Your task to perform on an android device: Go to eBay Image 0: 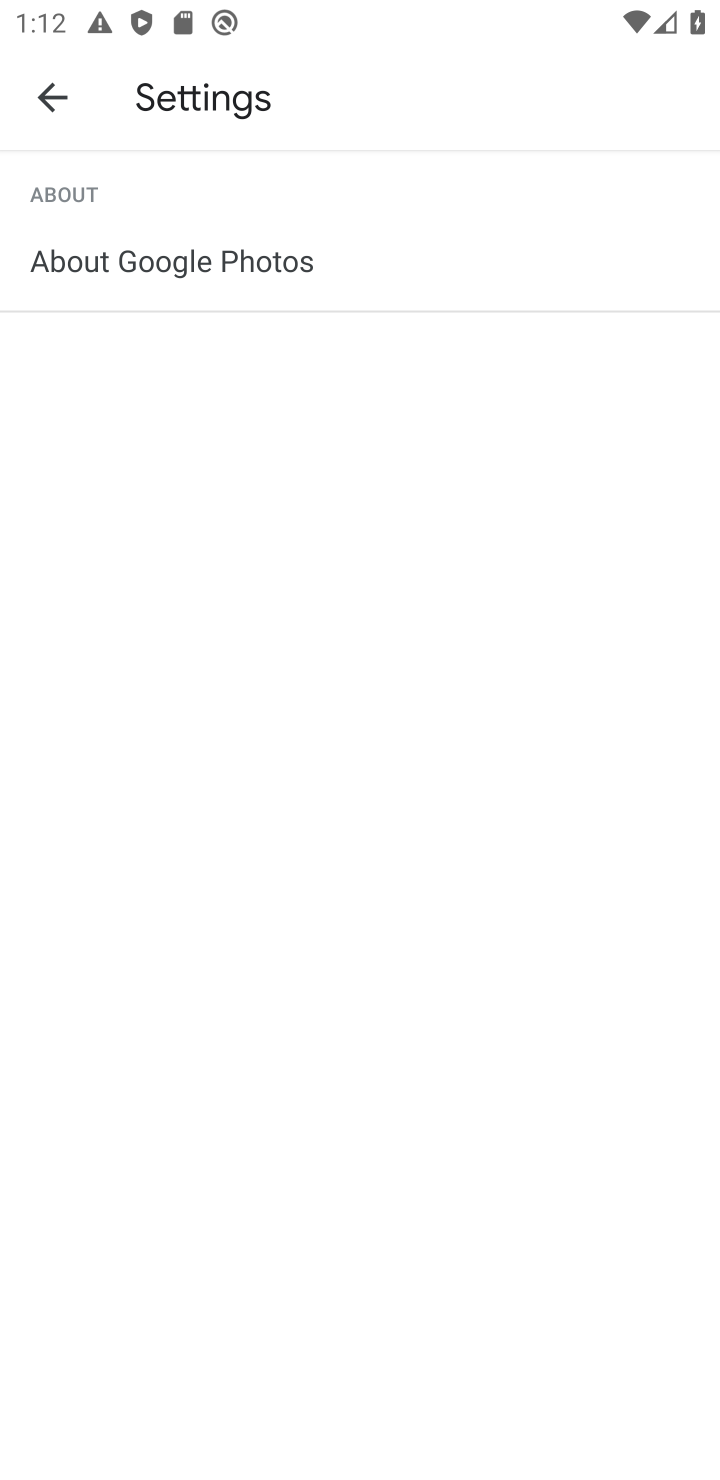
Step 0: press home button
Your task to perform on an android device: Go to eBay Image 1: 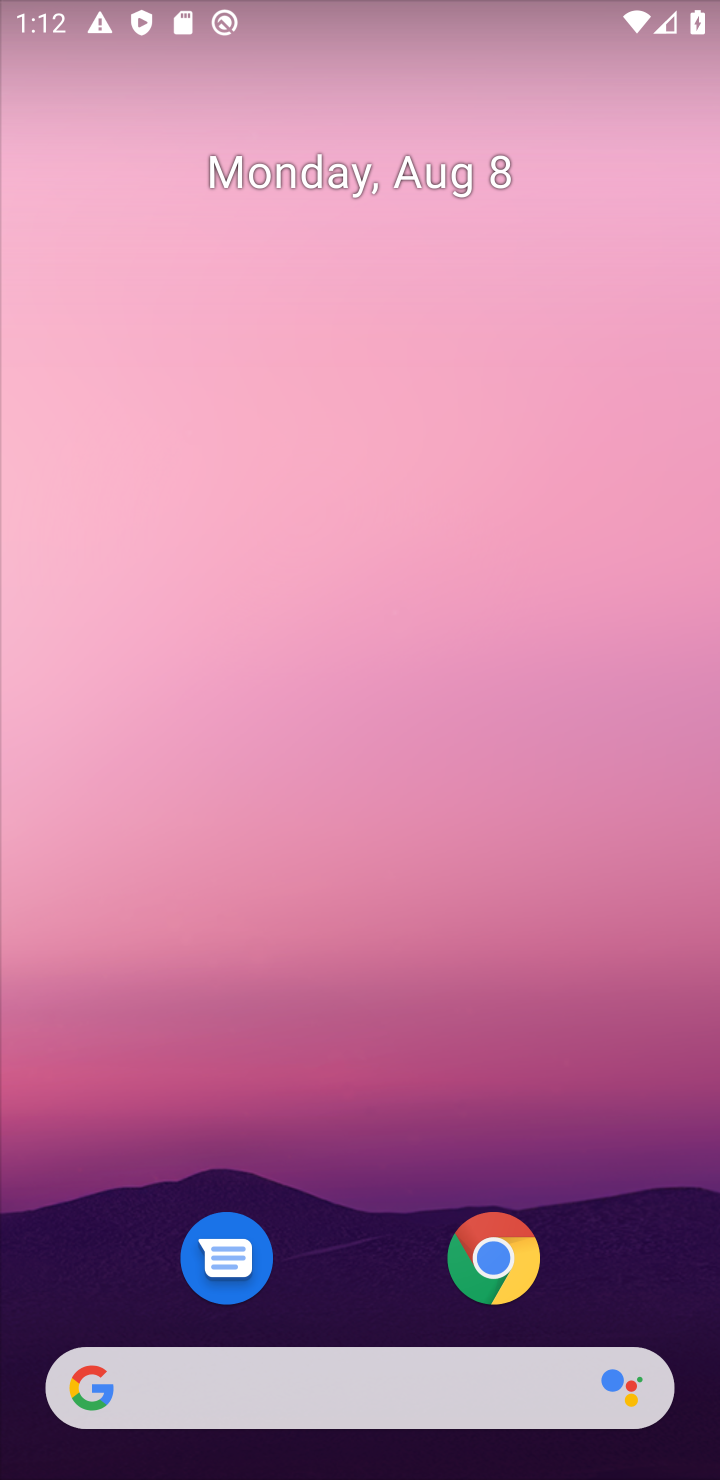
Step 1: click (459, 1248)
Your task to perform on an android device: Go to eBay Image 2: 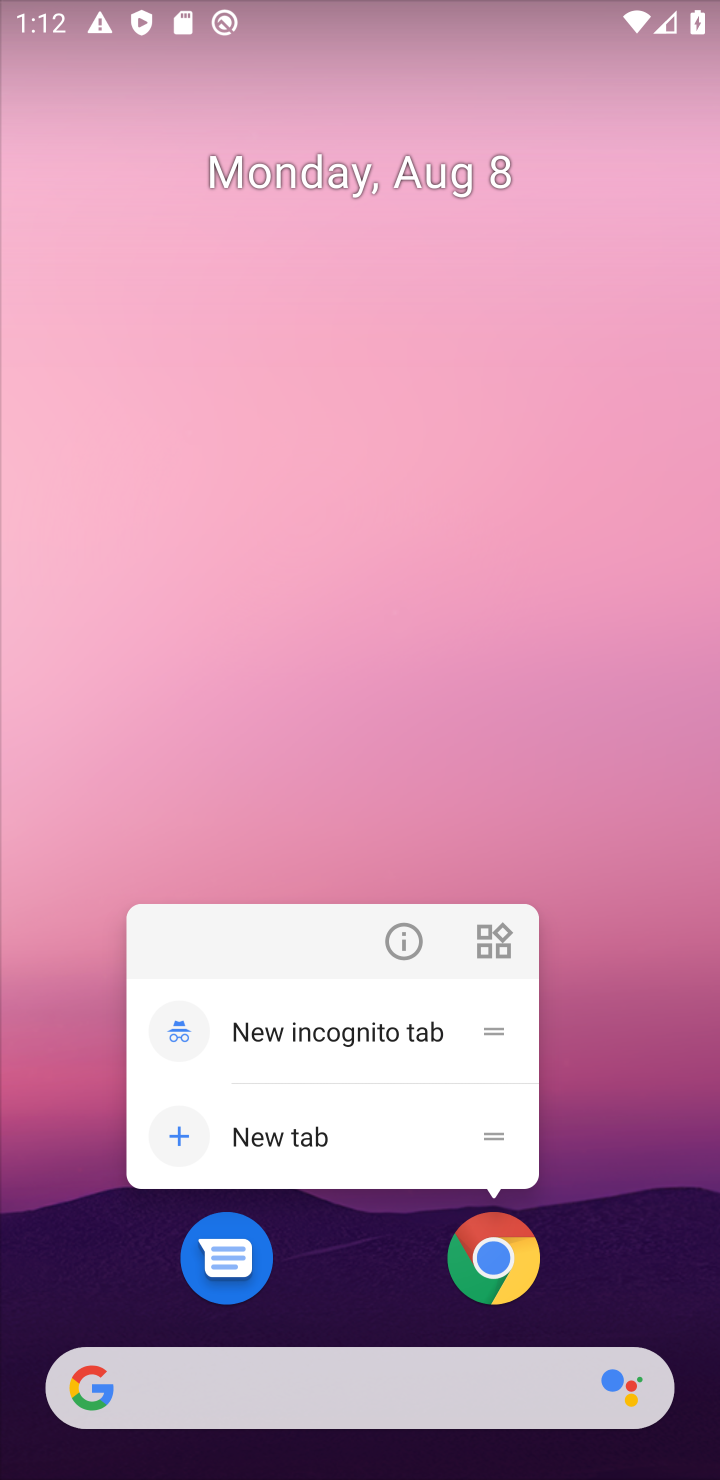
Step 2: click (575, 1288)
Your task to perform on an android device: Go to eBay Image 3: 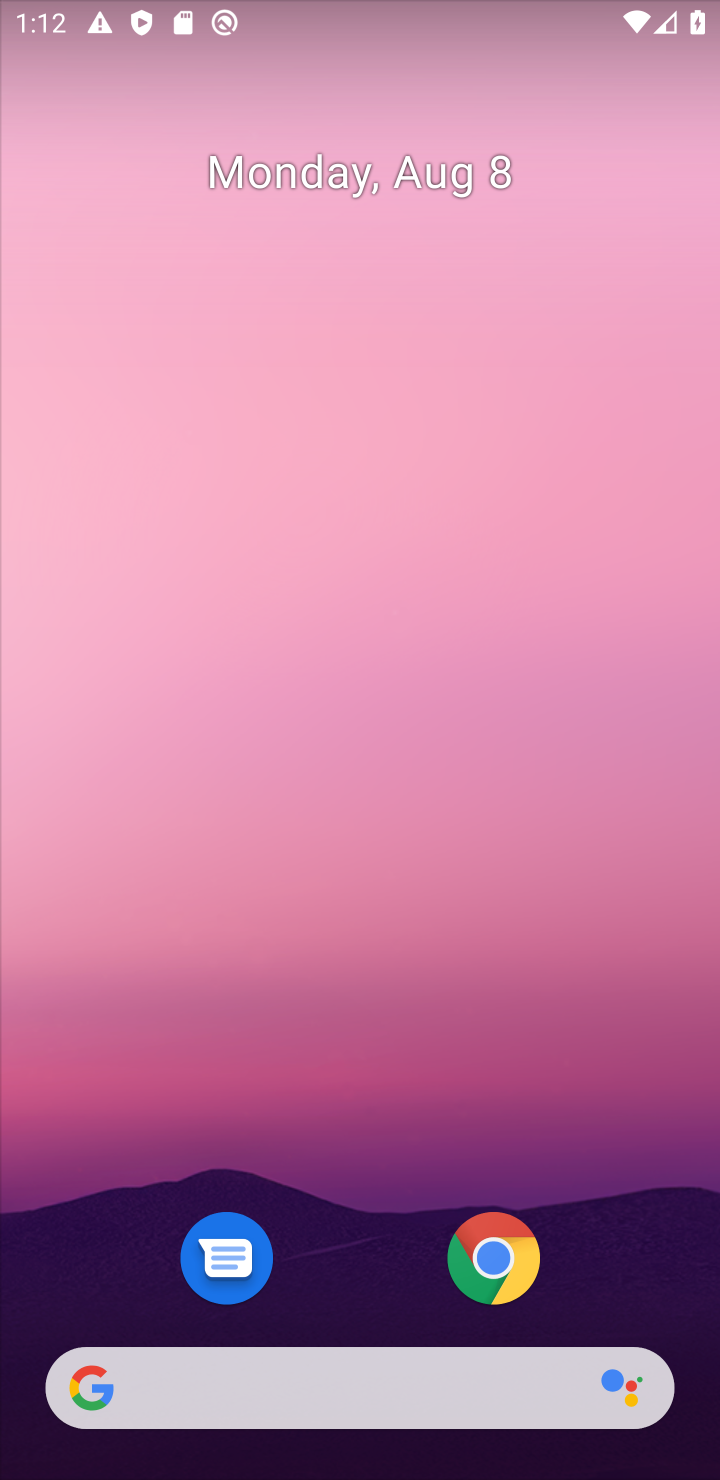
Step 3: click (508, 1270)
Your task to perform on an android device: Go to eBay Image 4: 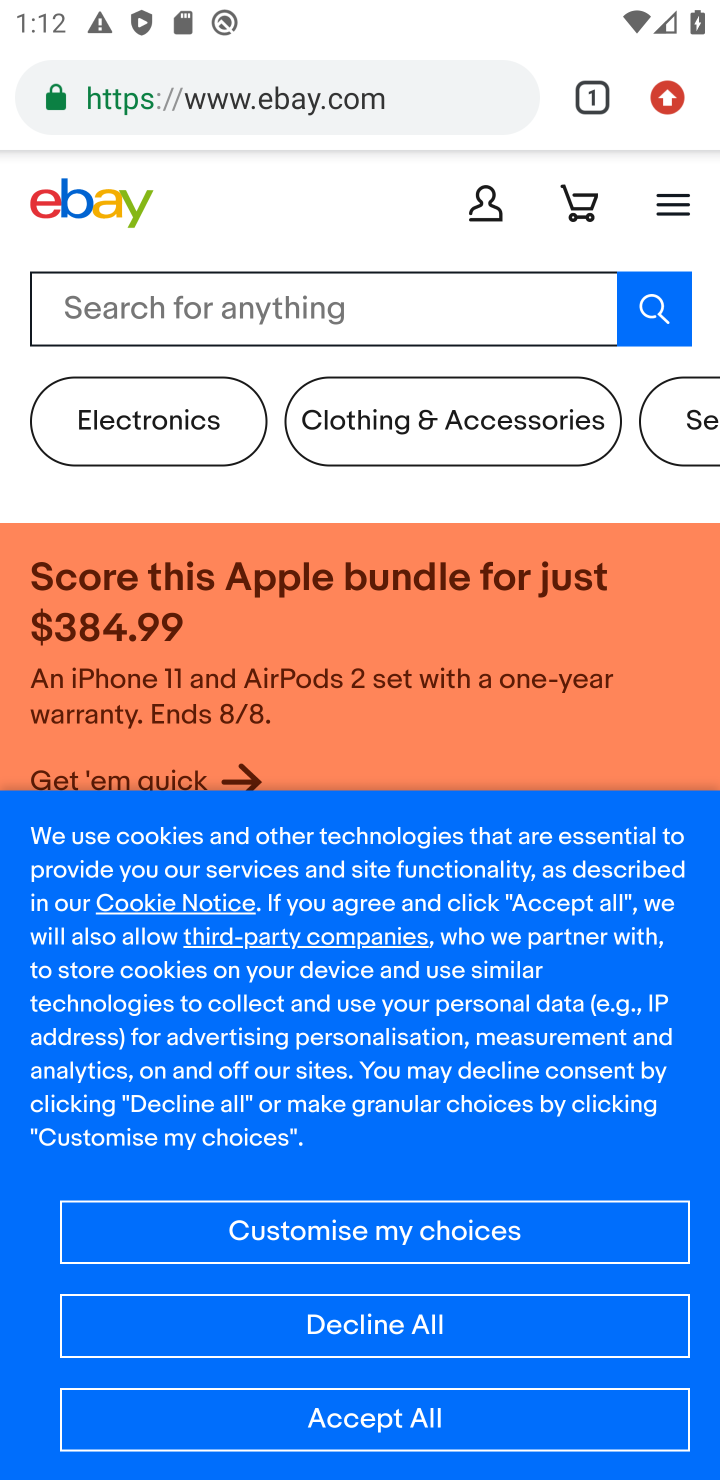
Step 4: task complete